Your task to perform on an android device: refresh tabs in the chrome app Image 0: 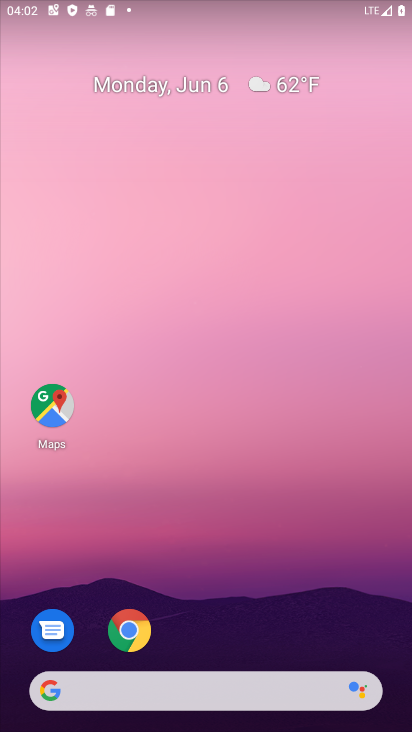
Step 0: press home button
Your task to perform on an android device: refresh tabs in the chrome app Image 1: 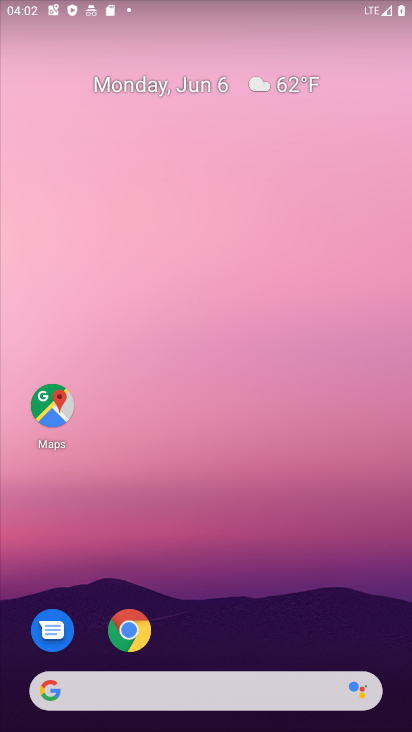
Step 1: drag from (333, 504) to (332, 155)
Your task to perform on an android device: refresh tabs in the chrome app Image 2: 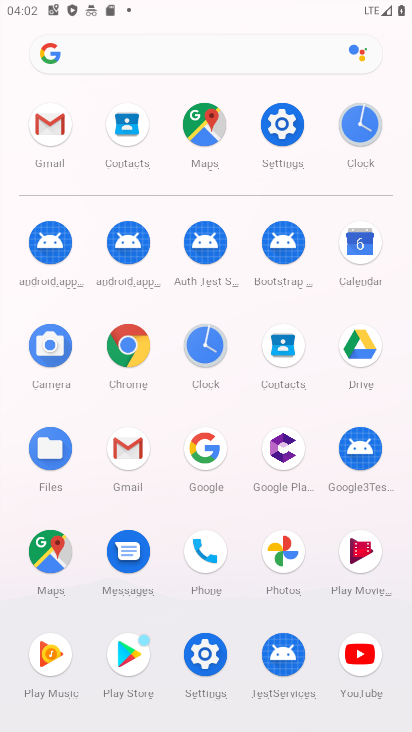
Step 2: click (117, 330)
Your task to perform on an android device: refresh tabs in the chrome app Image 3: 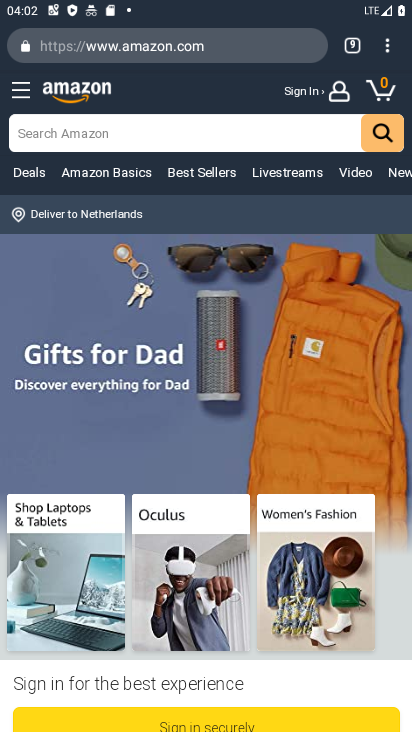
Step 3: click (393, 41)
Your task to perform on an android device: refresh tabs in the chrome app Image 4: 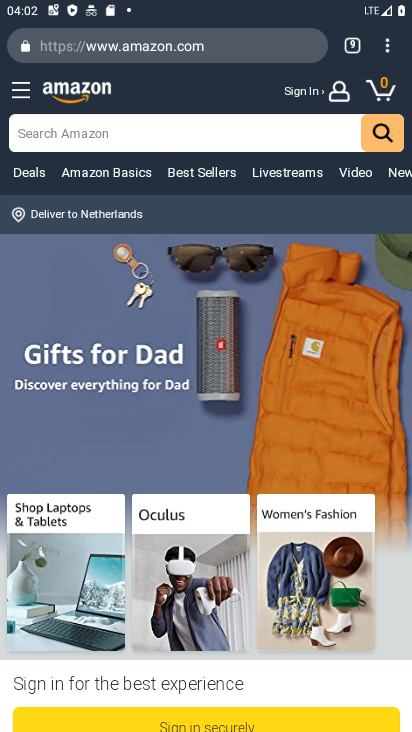
Step 4: task complete